Your task to perform on an android device: turn on data saver in the chrome app Image 0: 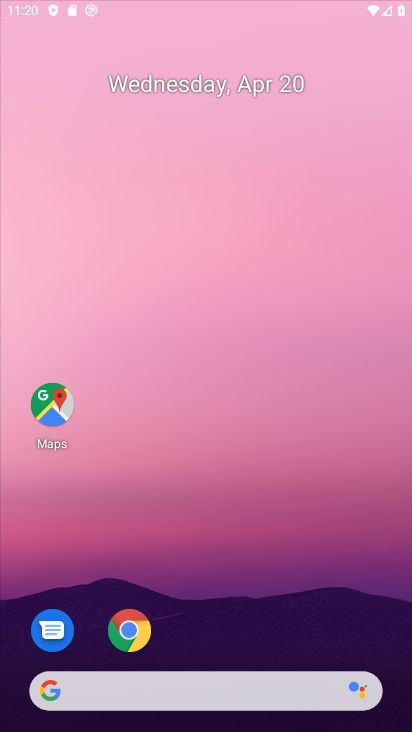
Step 0: click (235, 287)
Your task to perform on an android device: turn on data saver in the chrome app Image 1: 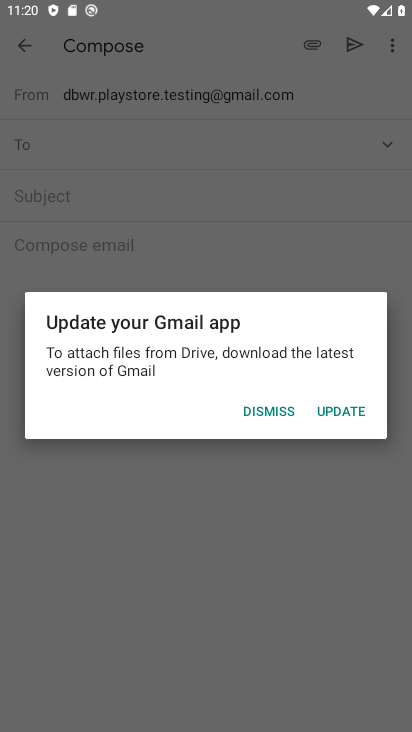
Step 1: press back button
Your task to perform on an android device: turn on data saver in the chrome app Image 2: 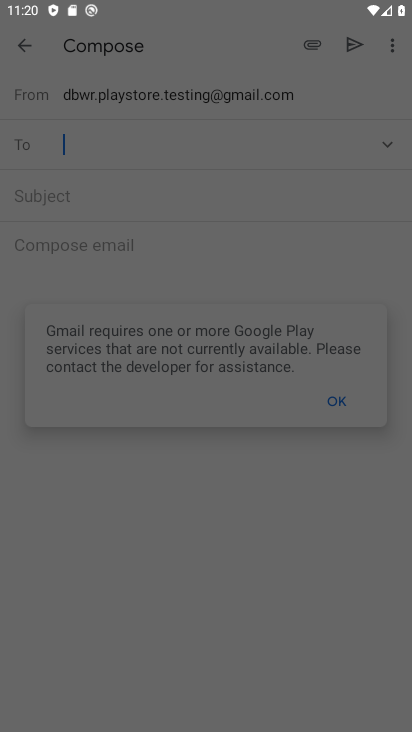
Step 2: press back button
Your task to perform on an android device: turn on data saver in the chrome app Image 3: 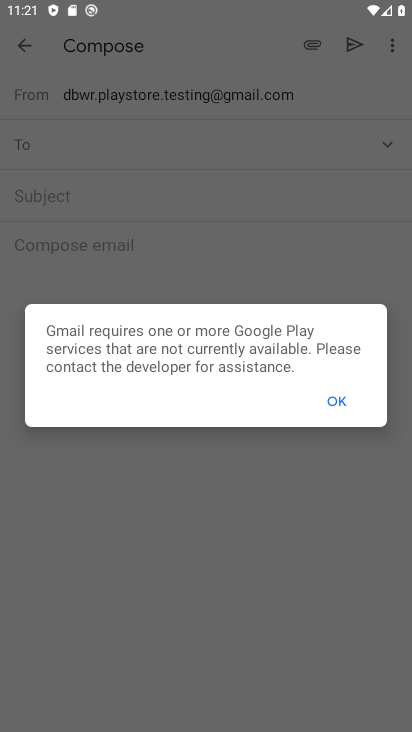
Step 3: click (343, 412)
Your task to perform on an android device: turn on data saver in the chrome app Image 4: 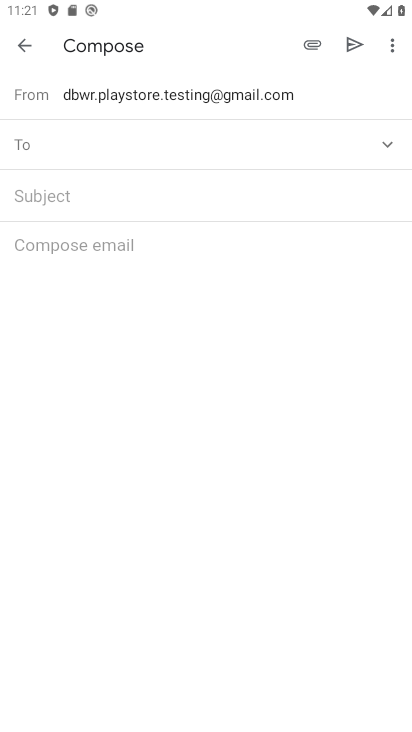
Step 4: press back button
Your task to perform on an android device: turn on data saver in the chrome app Image 5: 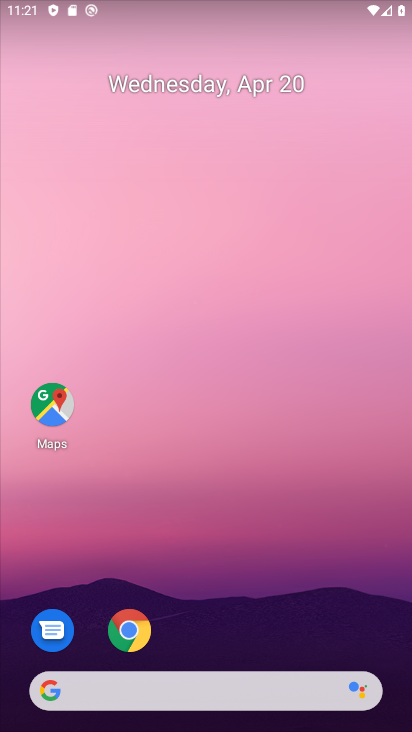
Step 5: drag from (164, 666) to (228, 119)
Your task to perform on an android device: turn on data saver in the chrome app Image 6: 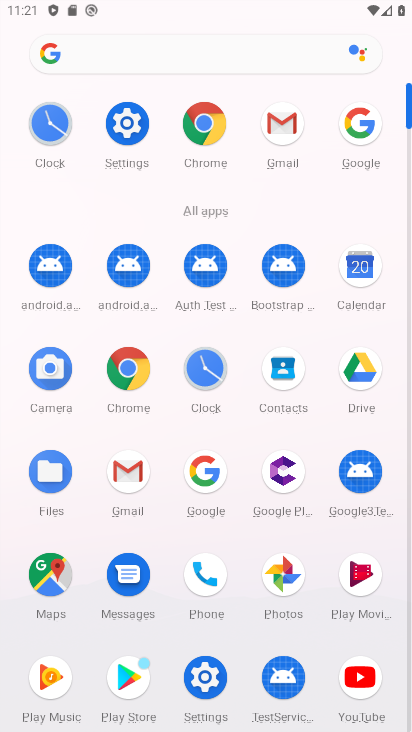
Step 6: click (122, 376)
Your task to perform on an android device: turn on data saver in the chrome app Image 7: 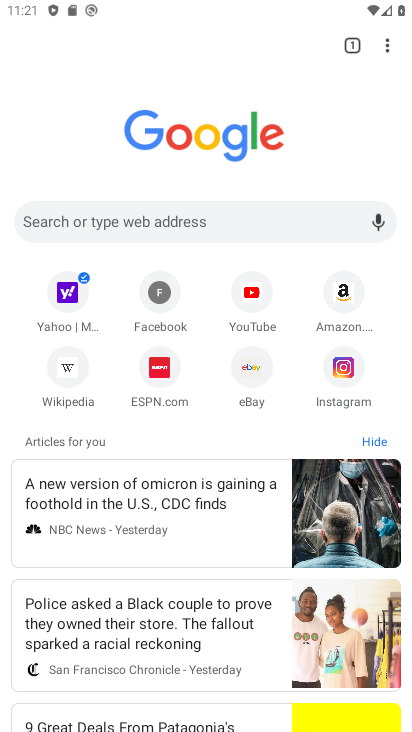
Step 7: drag from (393, 44) to (280, 429)
Your task to perform on an android device: turn on data saver in the chrome app Image 8: 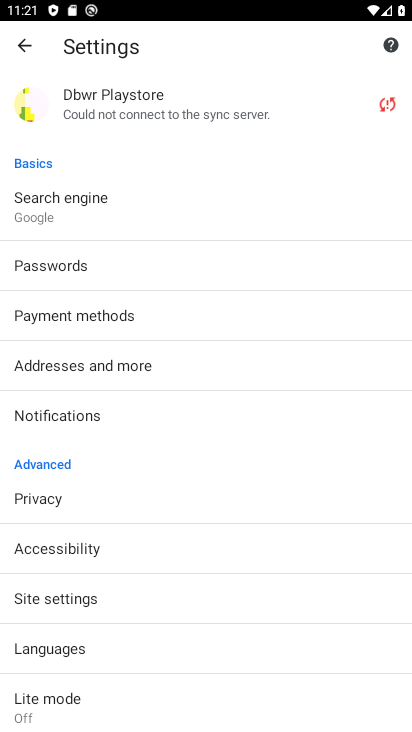
Step 8: drag from (212, 463) to (225, 410)
Your task to perform on an android device: turn on data saver in the chrome app Image 9: 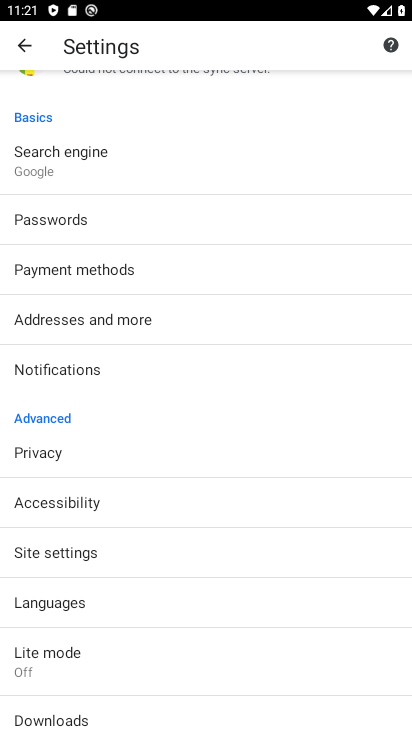
Step 9: click (96, 666)
Your task to perform on an android device: turn on data saver in the chrome app Image 10: 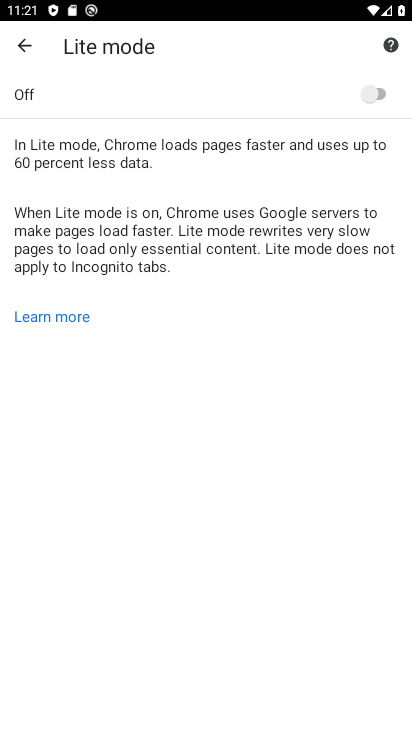
Step 10: click (384, 95)
Your task to perform on an android device: turn on data saver in the chrome app Image 11: 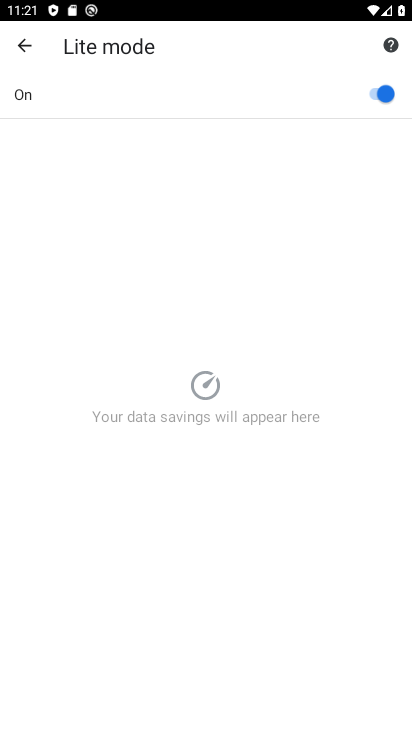
Step 11: task complete